Your task to perform on an android device: open app "Google Play Music" Image 0: 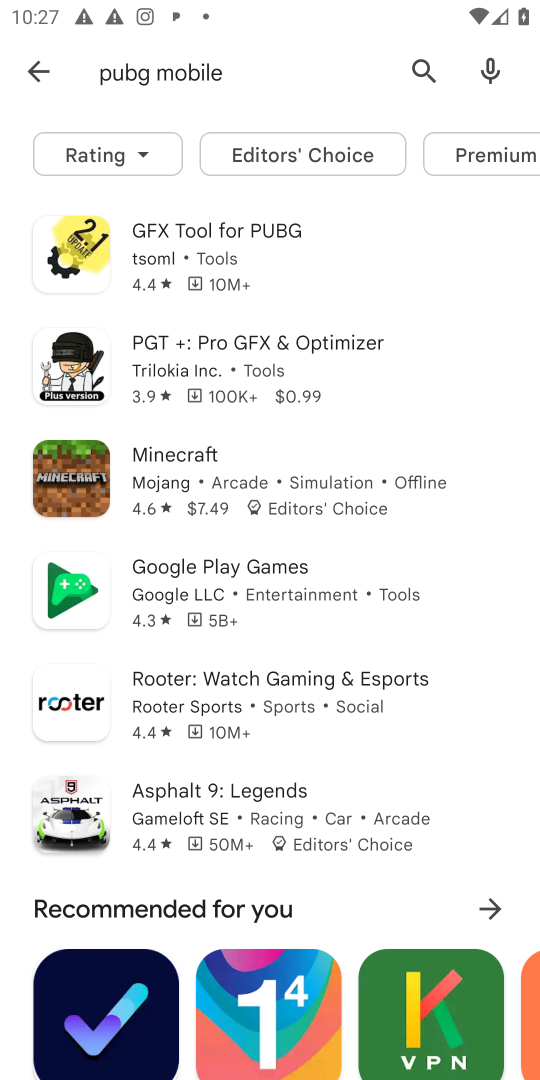
Step 0: press home button
Your task to perform on an android device: open app "Google Play Music" Image 1: 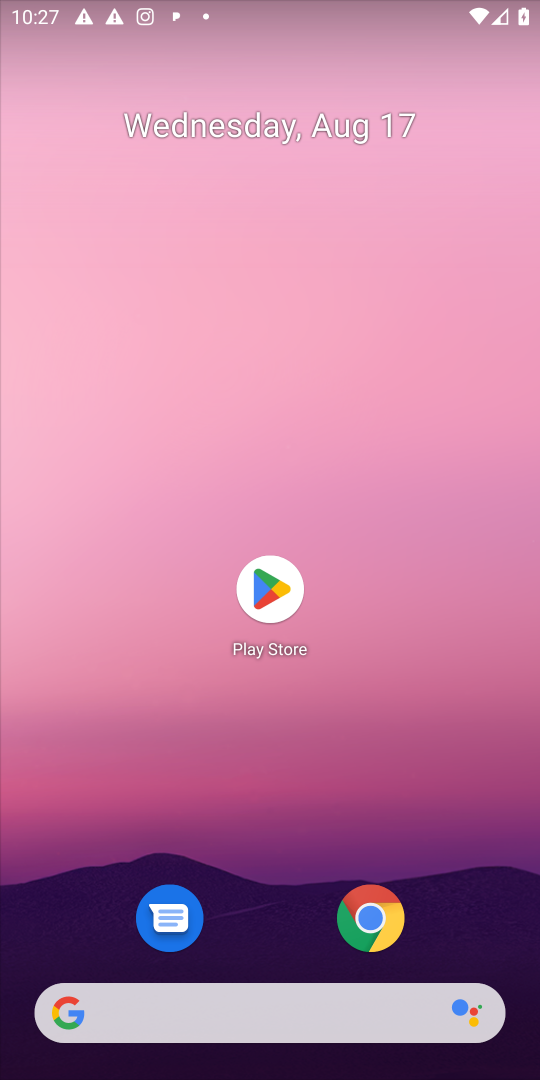
Step 1: click (270, 581)
Your task to perform on an android device: open app "Google Play Music" Image 2: 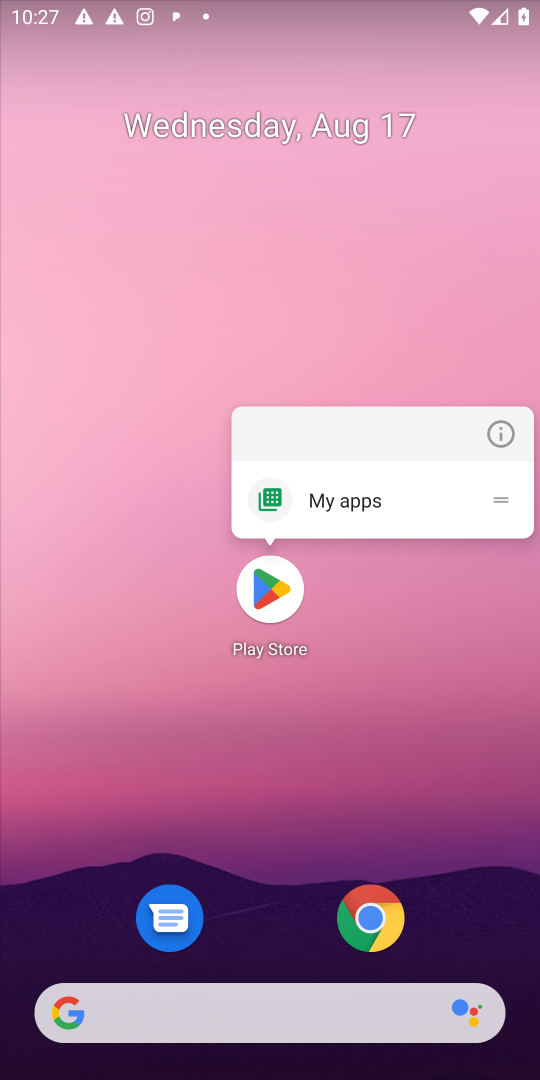
Step 2: click (270, 581)
Your task to perform on an android device: open app "Google Play Music" Image 3: 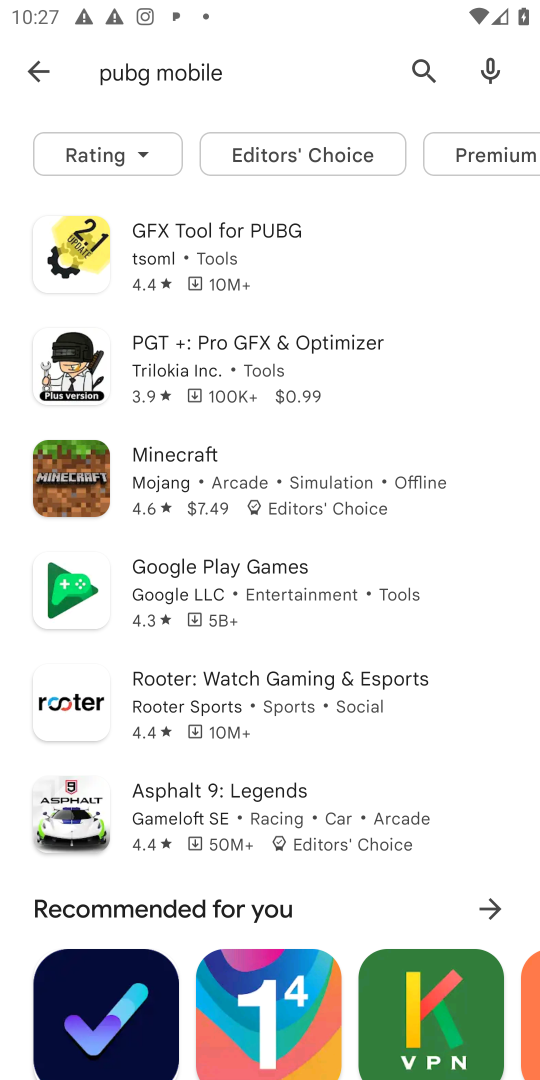
Step 3: click (436, 48)
Your task to perform on an android device: open app "Google Play Music" Image 4: 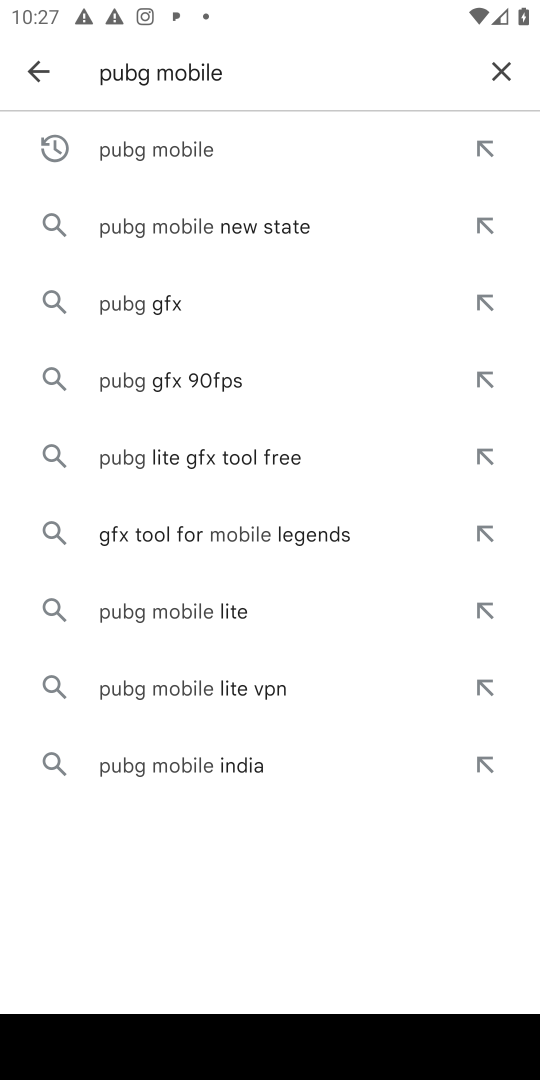
Step 4: click (502, 60)
Your task to perform on an android device: open app "Google Play Music" Image 5: 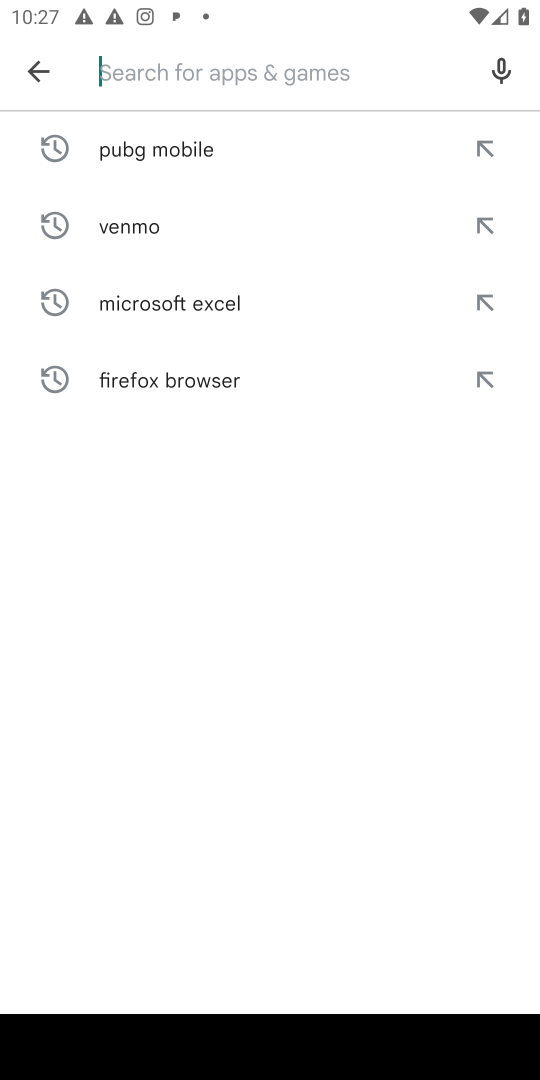
Step 5: type "Google Play Music"
Your task to perform on an android device: open app "Google Play Music" Image 6: 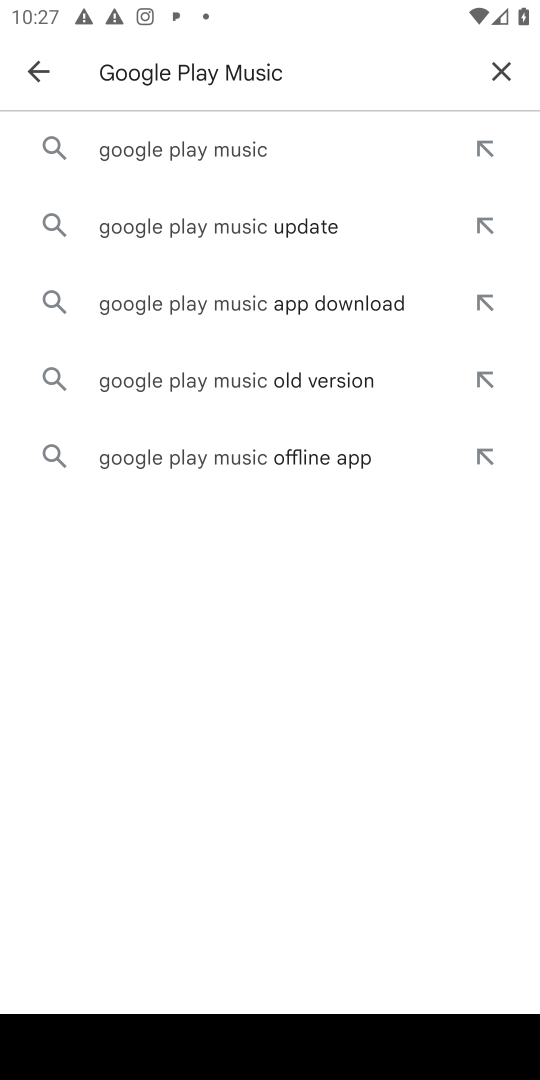
Step 6: click (217, 145)
Your task to perform on an android device: open app "Google Play Music" Image 7: 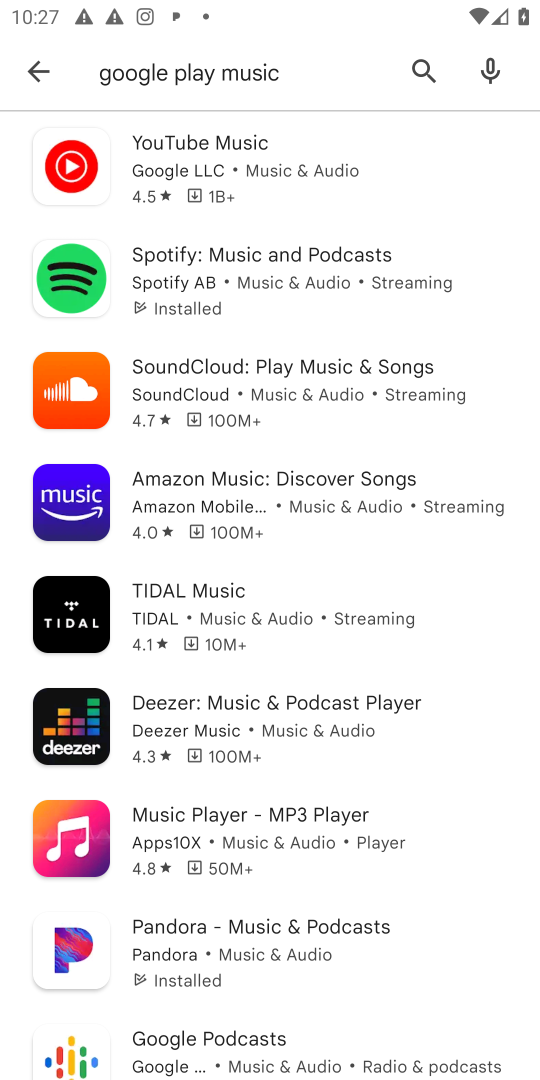
Step 7: task complete